Your task to perform on an android device: Show me the alarms in the clock app Image 0: 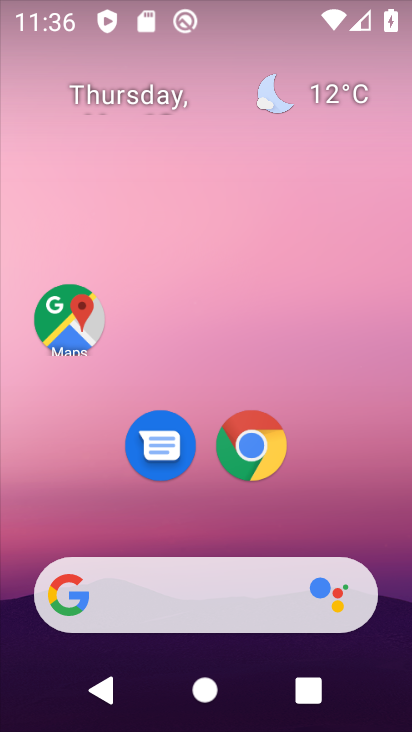
Step 0: drag from (249, 561) to (207, 1)
Your task to perform on an android device: Show me the alarms in the clock app Image 1: 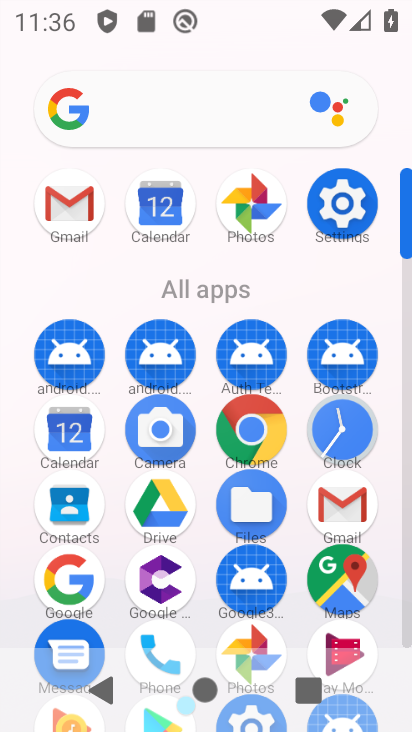
Step 1: click (337, 445)
Your task to perform on an android device: Show me the alarms in the clock app Image 2: 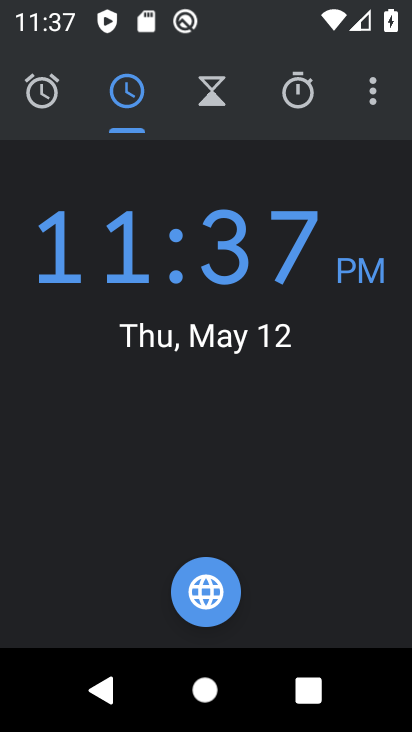
Step 2: click (34, 78)
Your task to perform on an android device: Show me the alarms in the clock app Image 3: 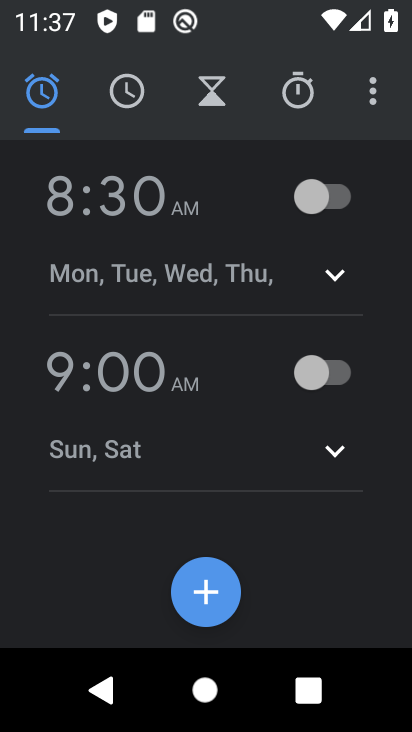
Step 3: task complete